Your task to perform on an android device: Open Youtube and go to "Your channel" Image 0: 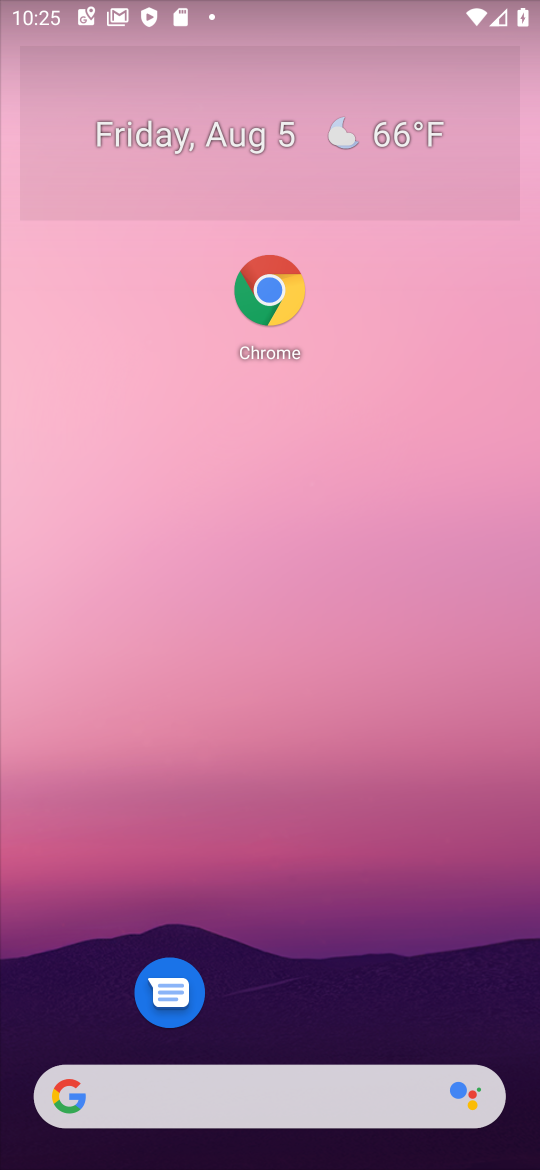
Step 0: drag from (287, 829) to (99, 131)
Your task to perform on an android device: Open Youtube and go to "Your channel" Image 1: 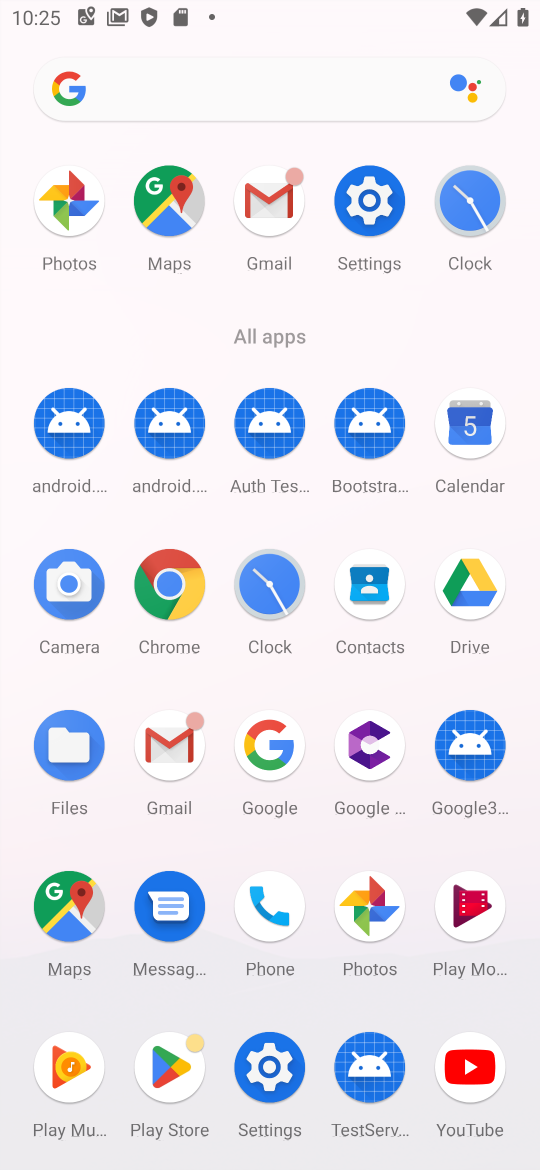
Step 1: click (477, 1088)
Your task to perform on an android device: Open Youtube and go to "Your channel" Image 2: 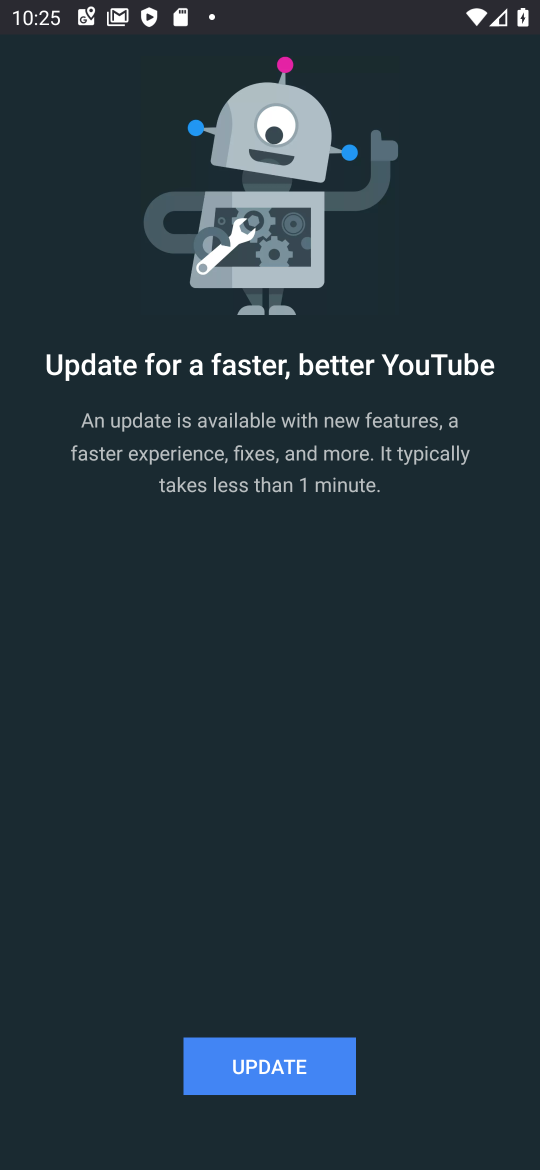
Step 2: click (297, 1060)
Your task to perform on an android device: Open Youtube and go to "Your channel" Image 3: 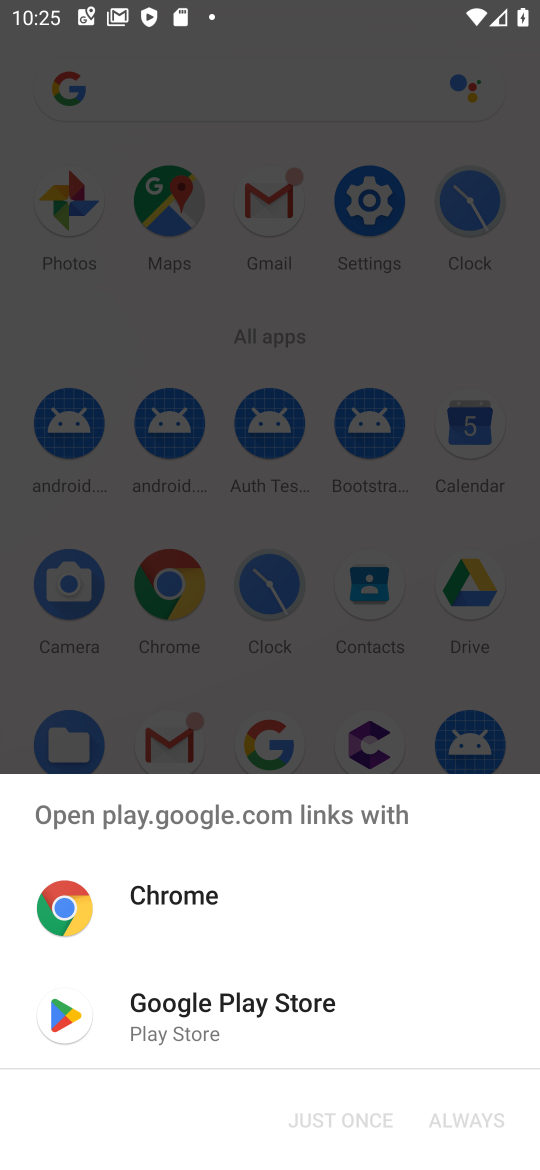
Step 3: click (193, 1006)
Your task to perform on an android device: Open Youtube and go to "Your channel" Image 4: 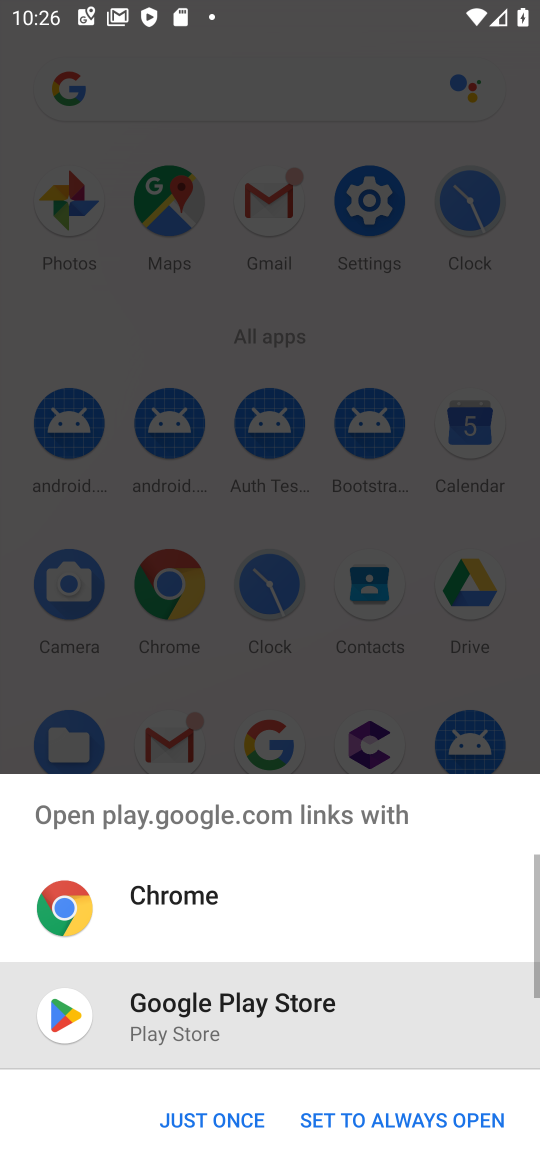
Step 4: click (227, 1117)
Your task to perform on an android device: Open Youtube and go to "Your channel" Image 5: 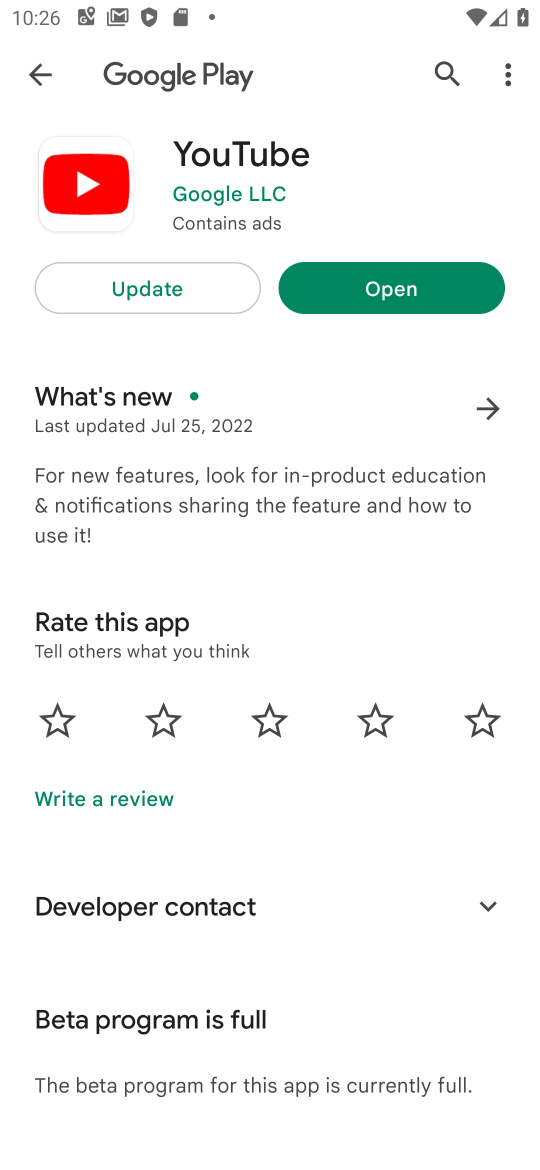
Step 5: click (154, 281)
Your task to perform on an android device: Open Youtube and go to "Your channel" Image 6: 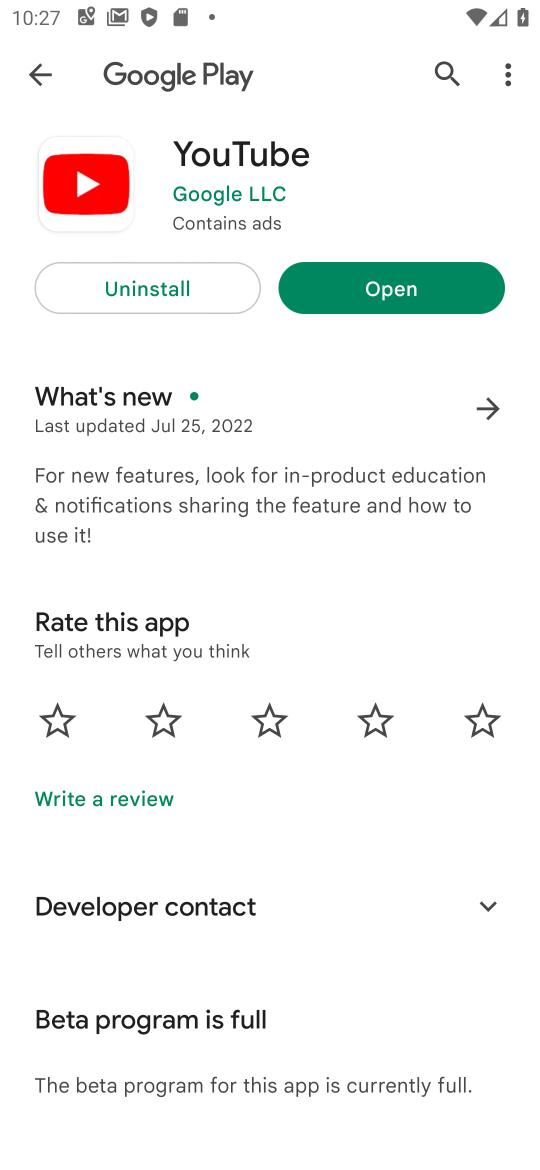
Step 6: click (380, 291)
Your task to perform on an android device: Open Youtube and go to "Your channel" Image 7: 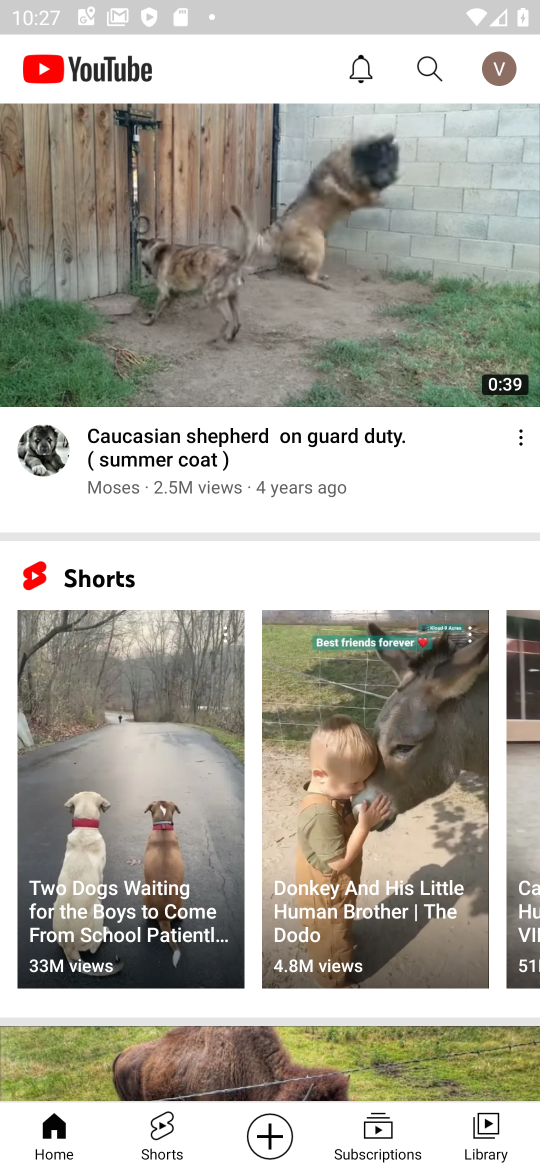
Step 7: click (501, 70)
Your task to perform on an android device: Open Youtube and go to "Your channel" Image 8: 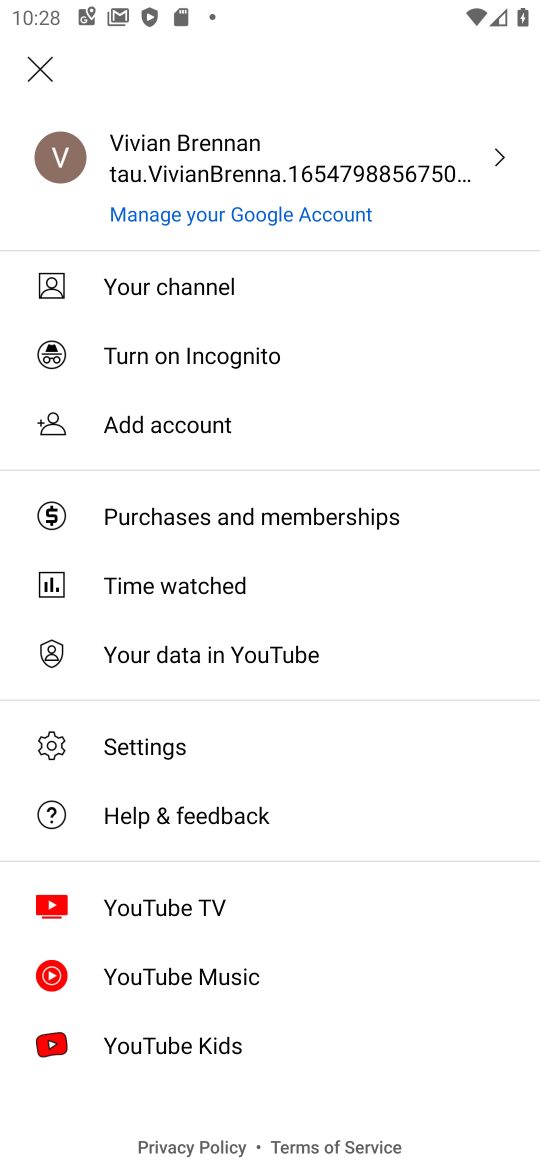
Step 8: click (133, 289)
Your task to perform on an android device: Open Youtube and go to "Your channel" Image 9: 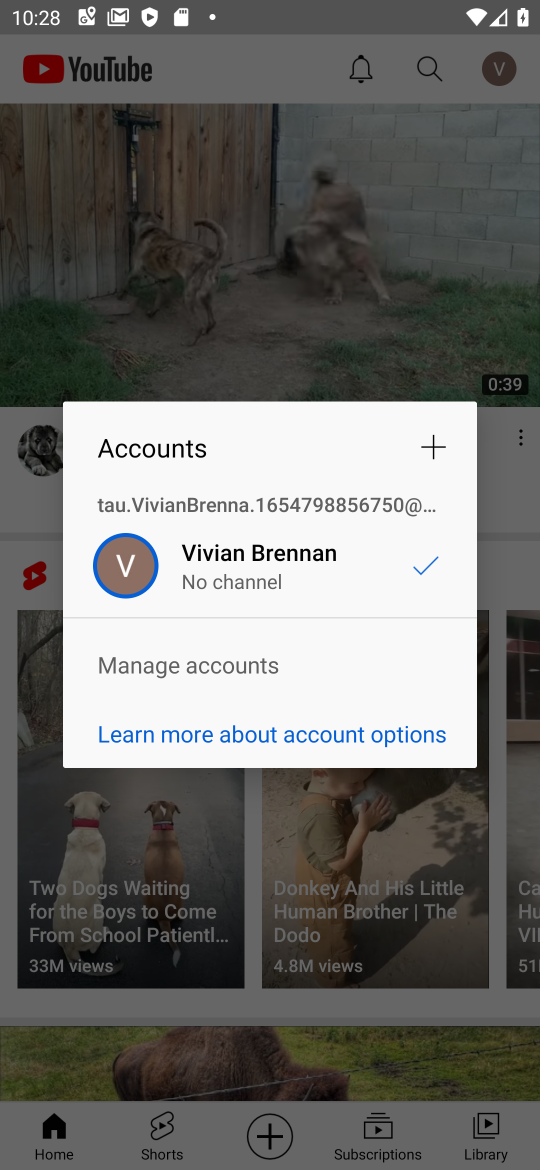
Step 9: task complete